Your task to perform on an android device: Search for pizza restaurants on Maps Image 0: 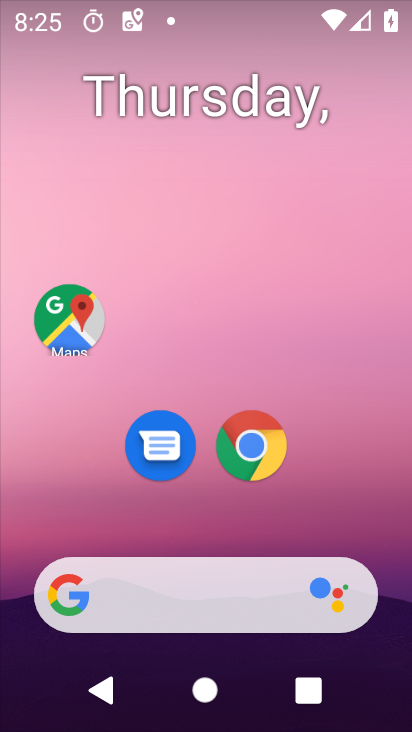
Step 0: click (67, 319)
Your task to perform on an android device: Search for pizza restaurants on Maps Image 1: 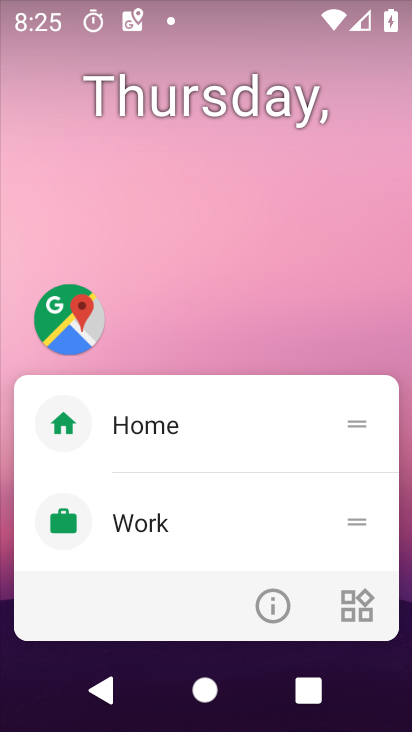
Step 1: click (272, 602)
Your task to perform on an android device: Search for pizza restaurants on Maps Image 2: 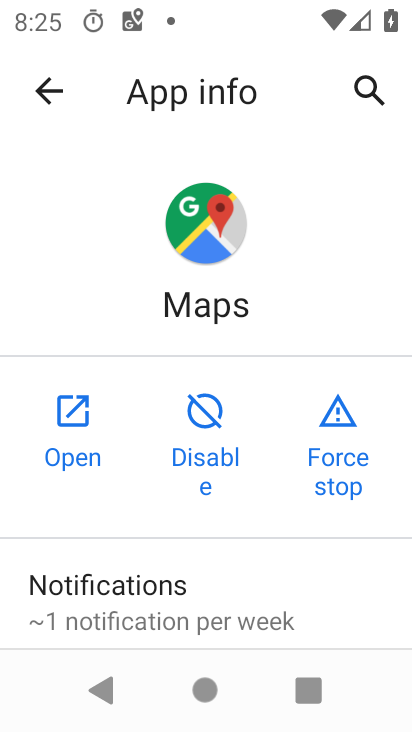
Step 2: click (75, 419)
Your task to perform on an android device: Search for pizza restaurants on Maps Image 3: 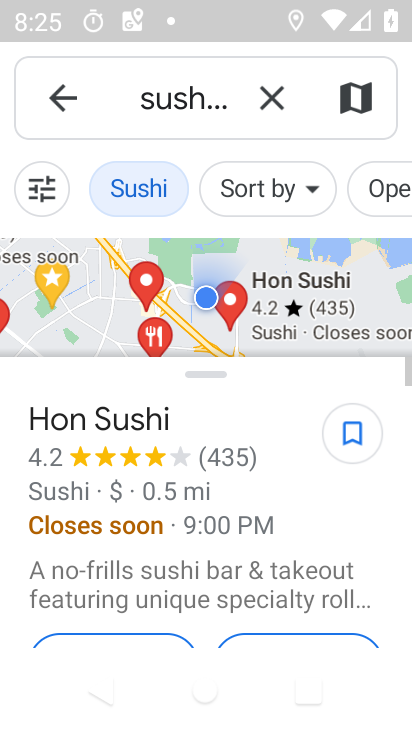
Step 3: click (271, 94)
Your task to perform on an android device: Search for pizza restaurants on Maps Image 4: 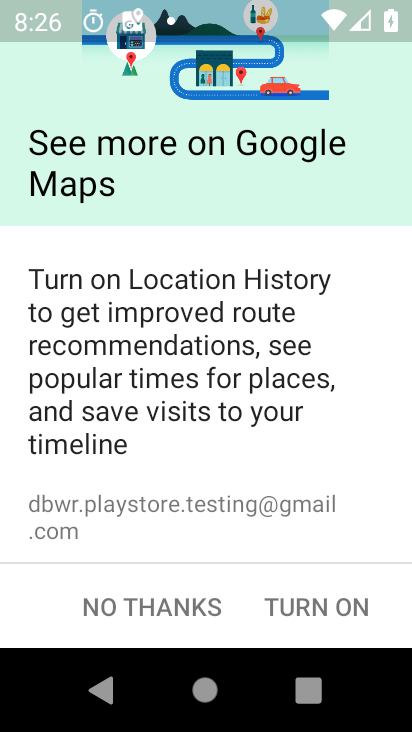
Step 4: click (159, 607)
Your task to perform on an android device: Search for pizza restaurants on Maps Image 5: 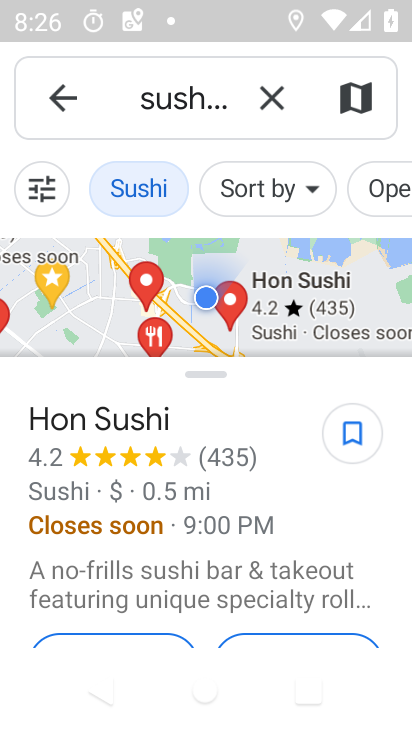
Step 5: click (267, 101)
Your task to perform on an android device: Search for pizza restaurants on Maps Image 6: 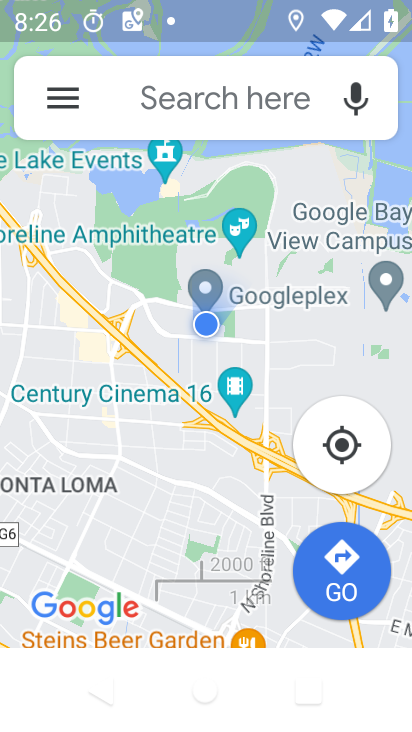
Step 6: click (198, 93)
Your task to perform on an android device: Search for pizza restaurants on Maps Image 7: 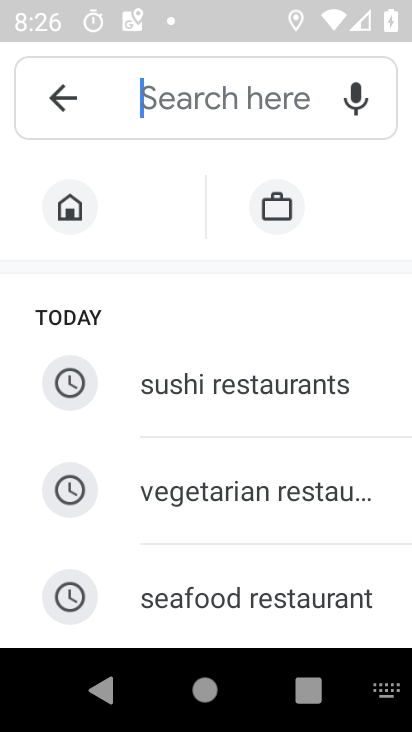
Step 7: drag from (108, 594) to (171, 282)
Your task to perform on an android device: Search for pizza restaurants on Maps Image 8: 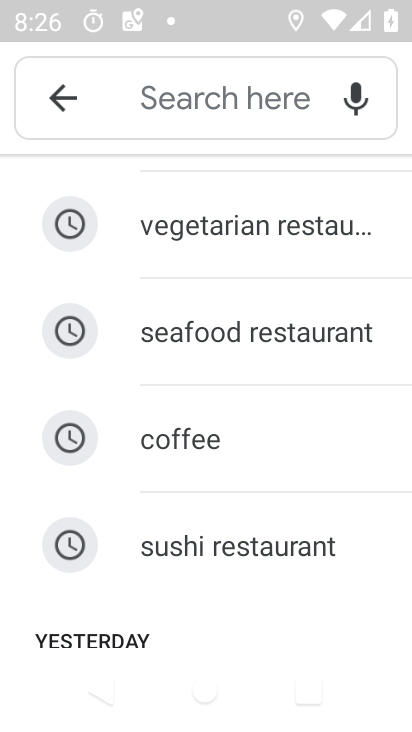
Step 8: click (265, 96)
Your task to perform on an android device: Search for pizza restaurants on Maps Image 9: 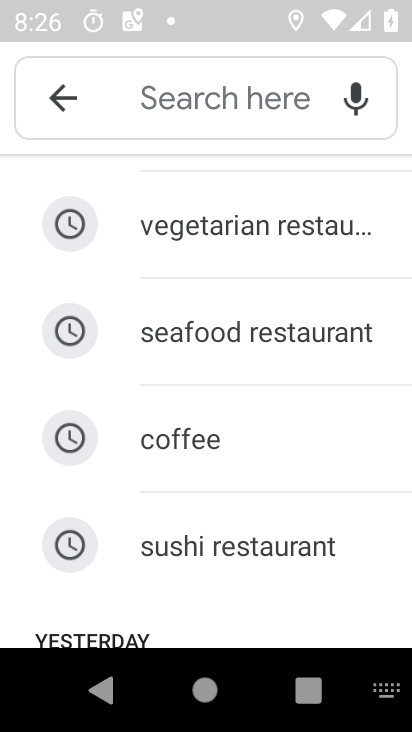
Step 9: type " pizza restaurants"
Your task to perform on an android device: Search for pizza restaurants on Maps Image 10: 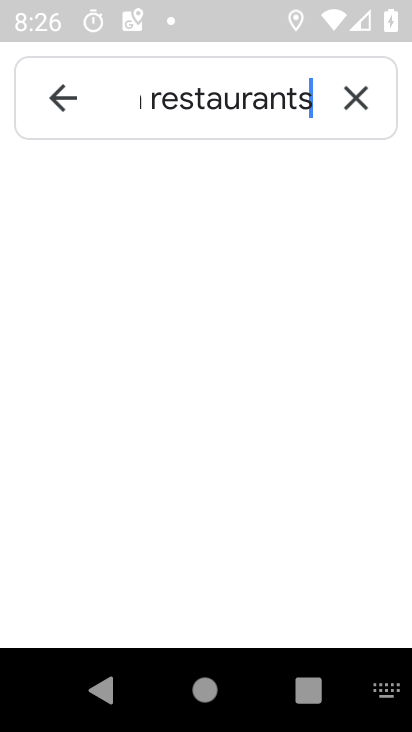
Step 10: type ""
Your task to perform on an android device: Search for pizza restaurants on Maps Image 11: 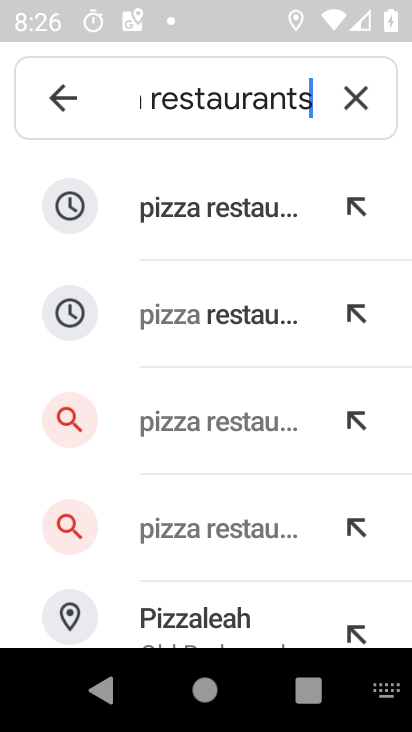
Step 11: click (220, 215)
Your task to perform on an android device: Search for pizza restaurants on Maps Image 12: 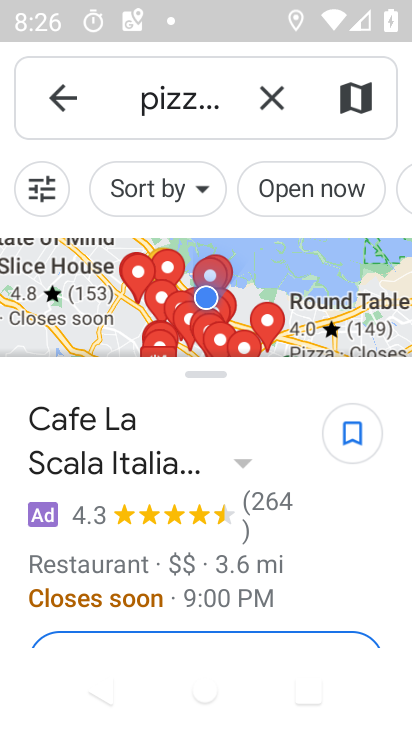
Step 12: task complete